Your task to perform on an android device: What's the weather? Image 0: 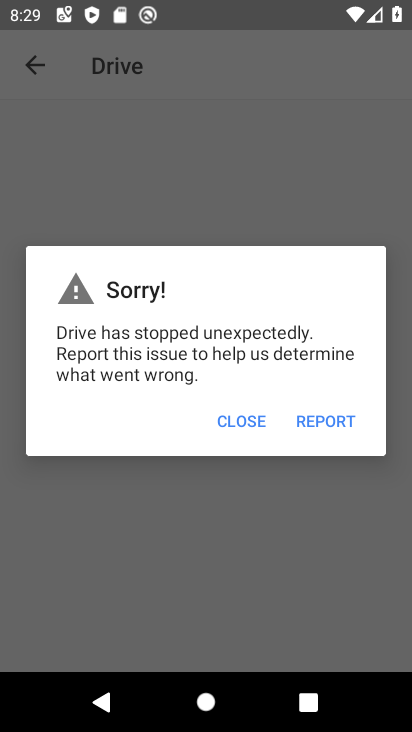
Step 0: press home button
Your task to perform on an android device: What's the weather? Image 1: 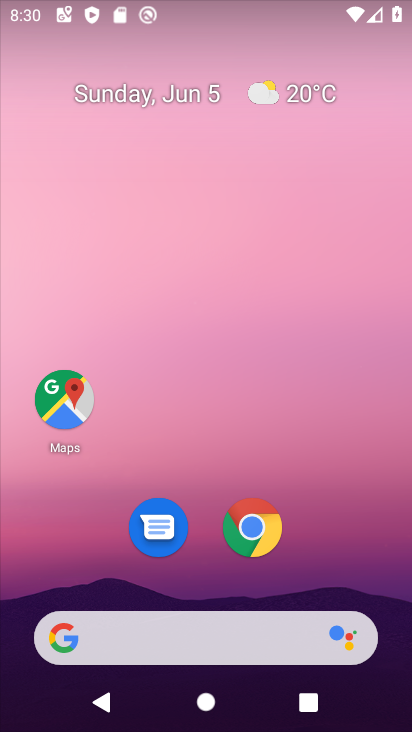
Step 1: click (316, 83)
Your task to perform on an android device: What's the weather? Image 2: 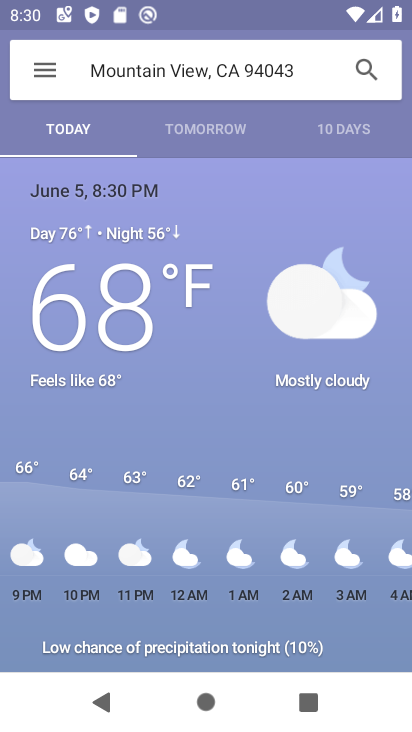
Step 2: task complete